Your task to perform on an android device: turn on data saver in the chrome app Image 0: 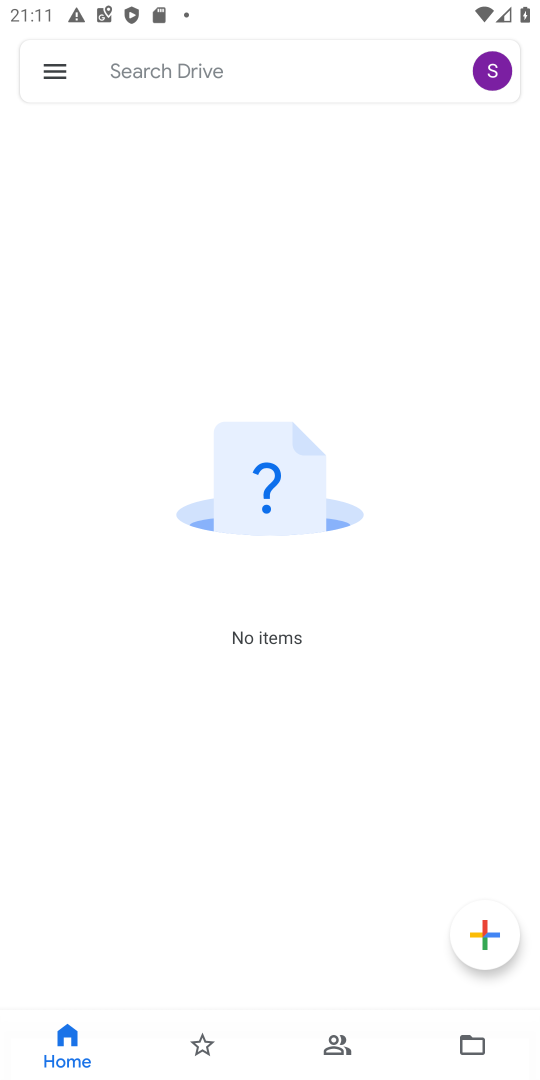
Step 0: press home button
Your task to perform on an android device: turn on data saver in the chrome app Image 1: 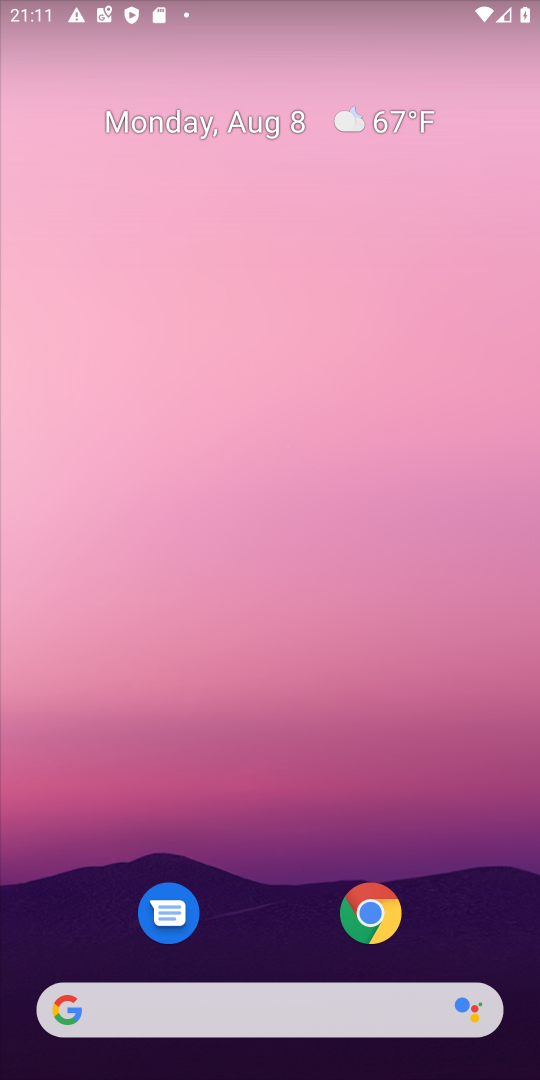
Step 1: click (372, 912)
Your task to perform on an android device: turn on data saver in the chrome app Image 2: 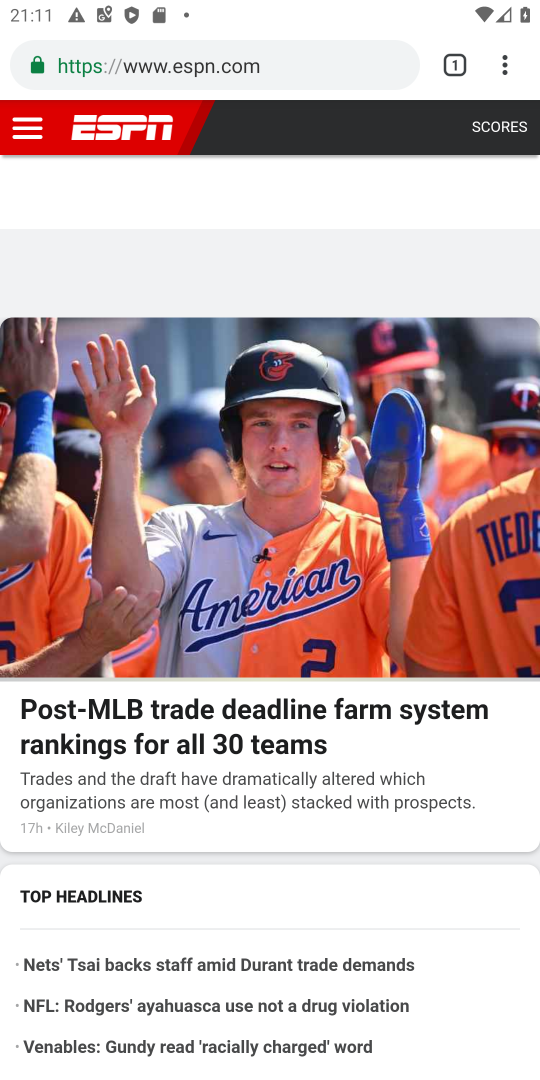
Step 2: drag from (505, 66) to (284, 853)
Your task to perform on an android device: turn on data saver in the chrome app Image 3: 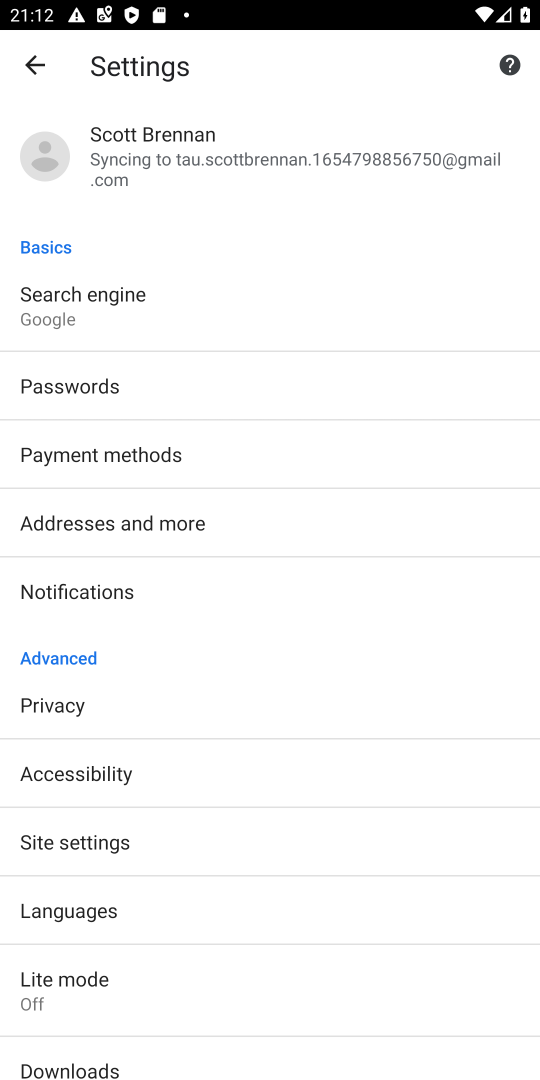
Step 3: click (79, 976)
Your task to perform on an android device: turn on data saver in the chrome app Image 4: 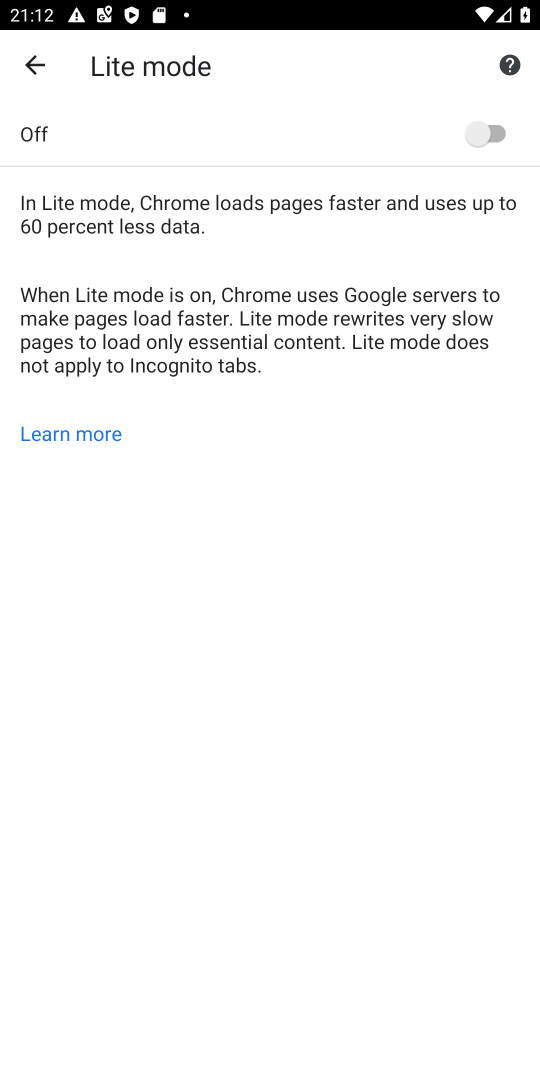
Step 4: click (486, 145)
Your task to perform on an android device: turn on data saver in the chrome app Image 5: 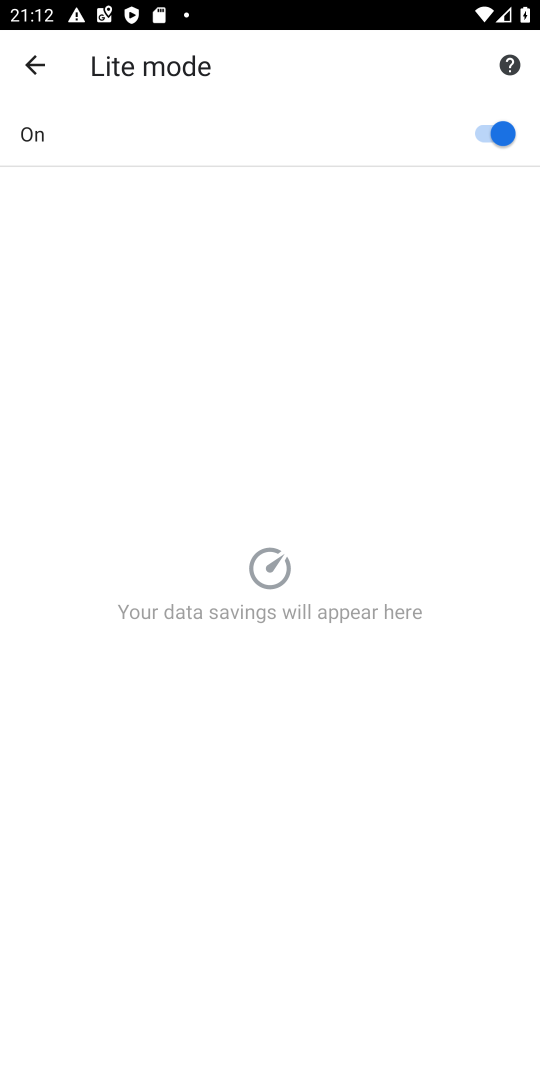
Step 5: task complete